Your task to perform on an android device: empty trash in google photos Image 0: 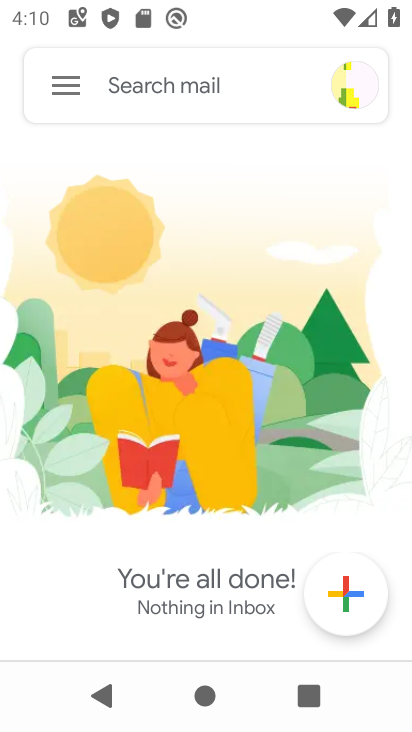
Step 0: press home button
Your task to perform on an android device: empty trash in google photos Image 1: 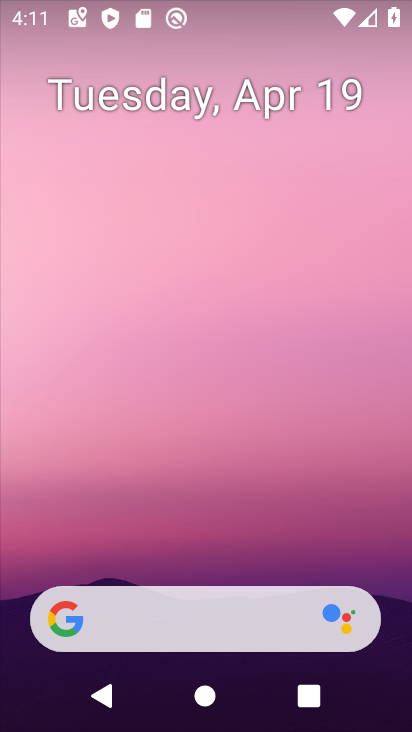
Step 1: drag from (213, 552) to (238, 83)
Your task to perform on an android device: empty trash in google photos Image 2: 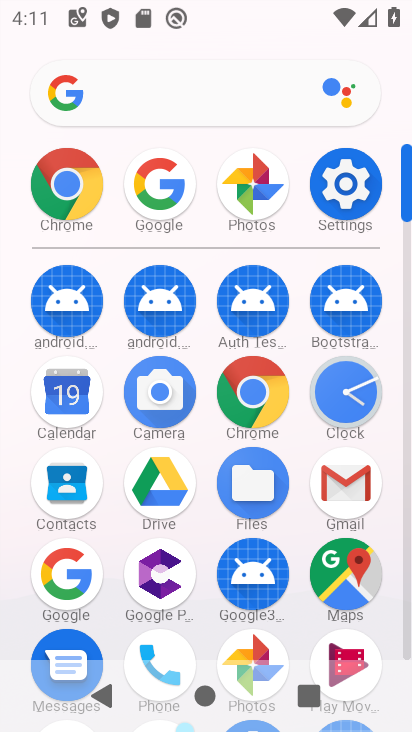
Step 2: click (254, 186)
Your task to perform on an android device: empty trash in google photos Image 3: 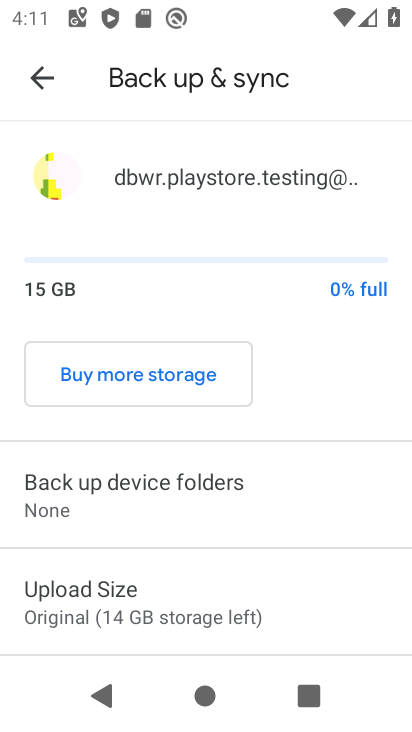
Step 3: press back button
Your task to perform on an android device: empty trash in google photos Image 4: 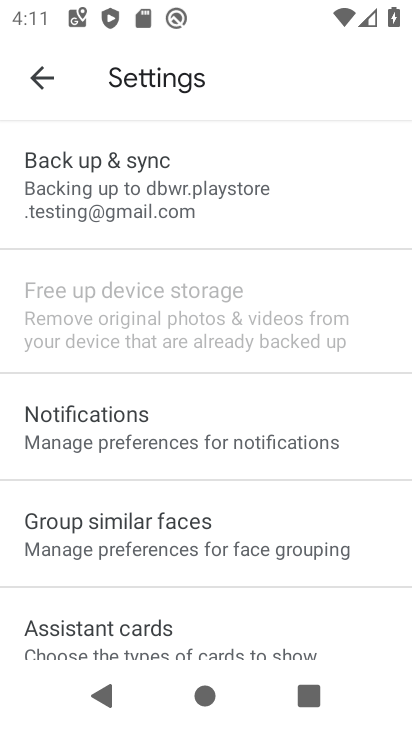
Step 4: press back button
Your task to perform on an android device: empty trash in google photos Image 5: 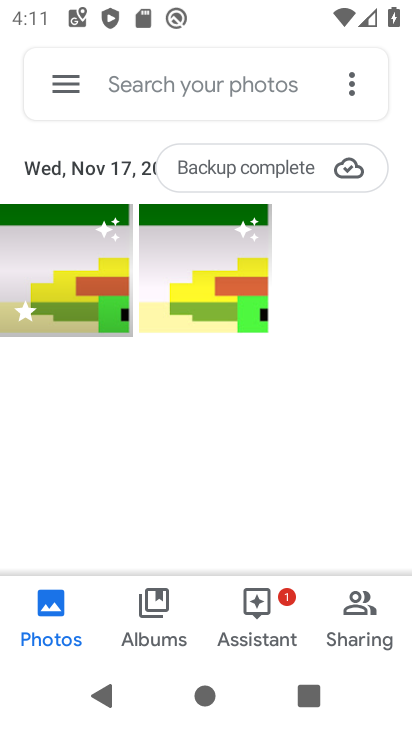
Step 5: click (68, 93)
Your task to perform on an android device: empty trash in google photos Image 6: 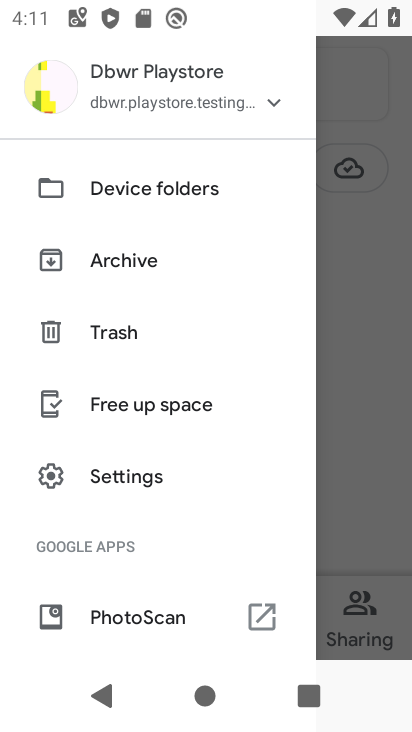
Step 6: click (115, 335)
Your task to perform on an android device: empty trash in google photos Image 7: 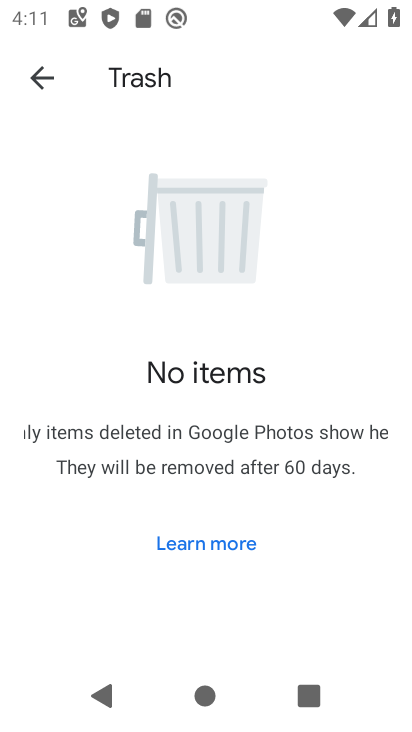
Step 7: task complete